Your task to perform on an android device: toggle notifications settings in the gmail app Image 0: 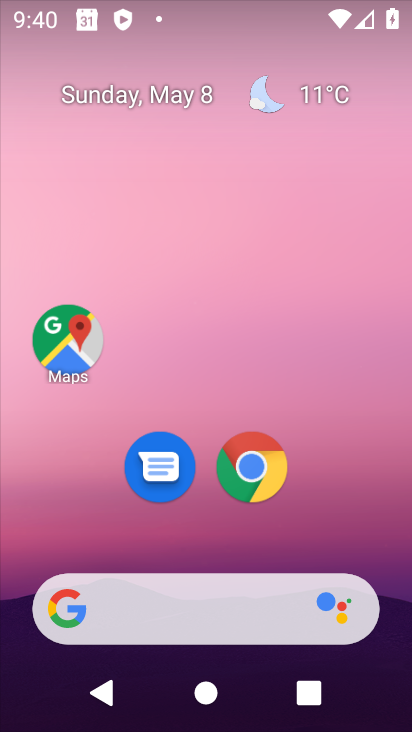
Step 0: drag from (31, 549) to (218, 189)
Your task to perform on an android device: toggle notifications settings in the gmail app Image 1: 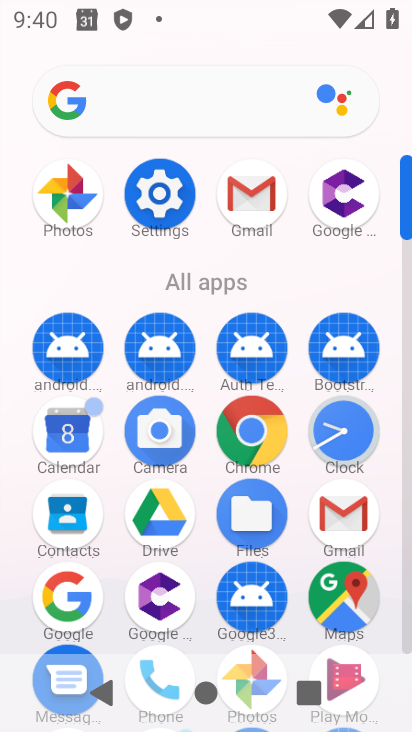
Step 1: click (328, 510)
Your task to perform on an android device: toggle notifications settings in the gmail app Image 2: 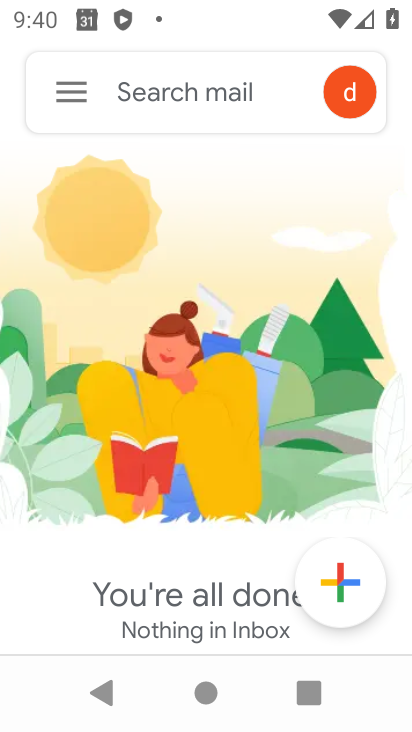
Step 2: click (75, 84)
Your task to perform on an android device: toggle notifications settings in the gmail app Image 3: 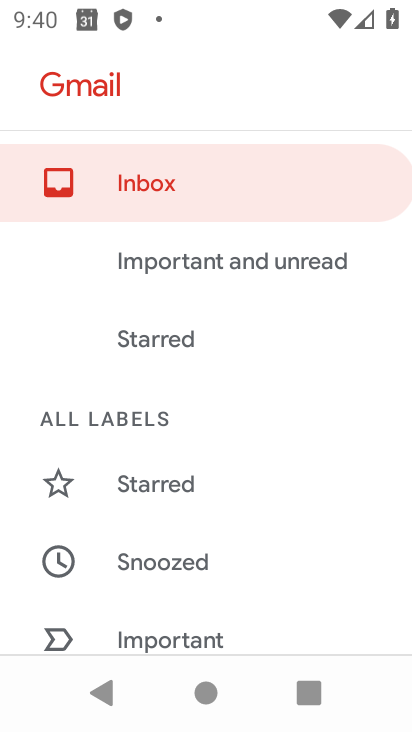
Step 3: drag from (150, 588) to (292, 150)
Your task to perform on an android device: toggle notifications settings in the gmail app Image 4: 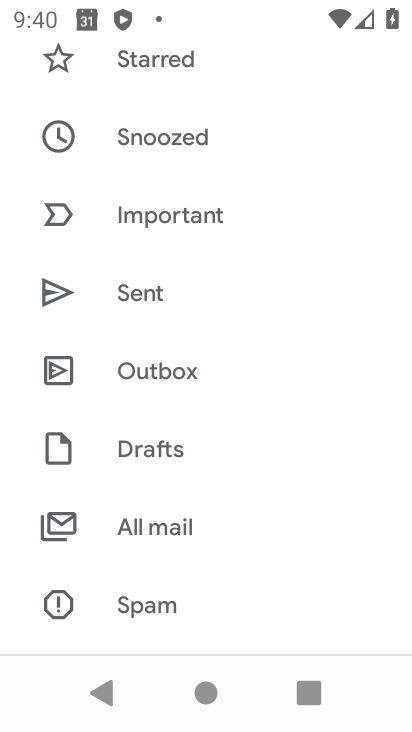
Step 4: drag from (211, 602) to (324, 160)
Your task to perform on an android device: toggle notifications settings in the gmail app Image 5: 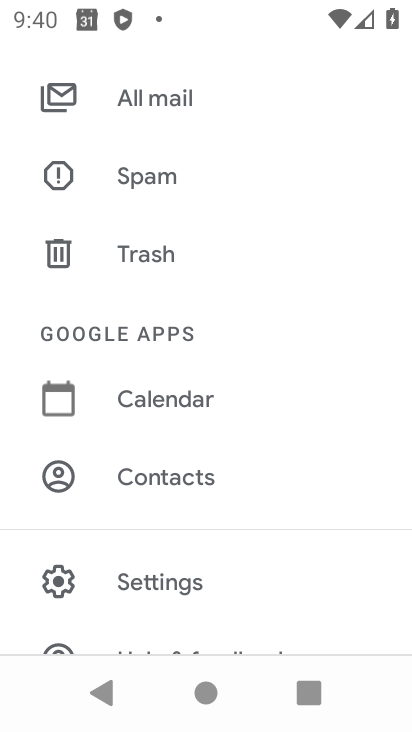
Step 5: click (153, 576)
Your task to perform on an android device: toggle notifications settings in the gmail app Image 6: 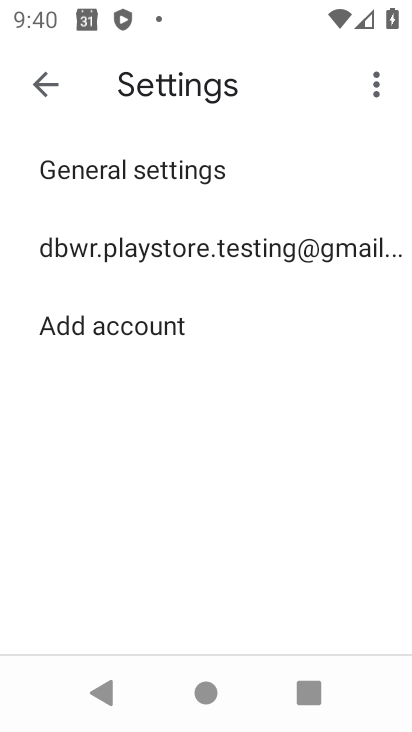
Step 6: click (46, 239)
Your task to perform on an android device: toggle notifications settings in the gmail app Image 7: 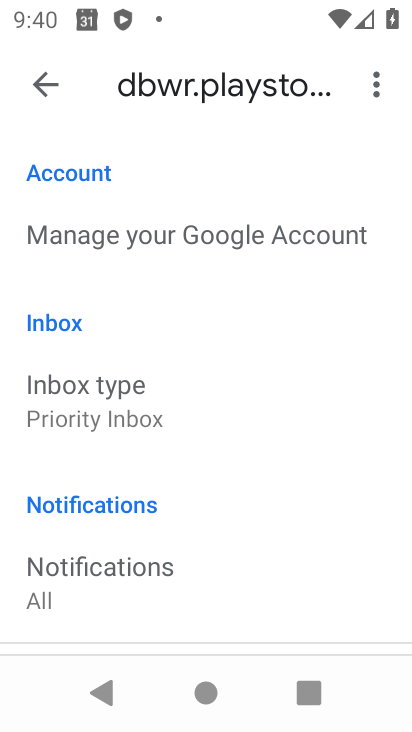
Step 7: click (119, 580)
Your task to perform on an android device: toggle notifications settings in the gmail app Image 8: 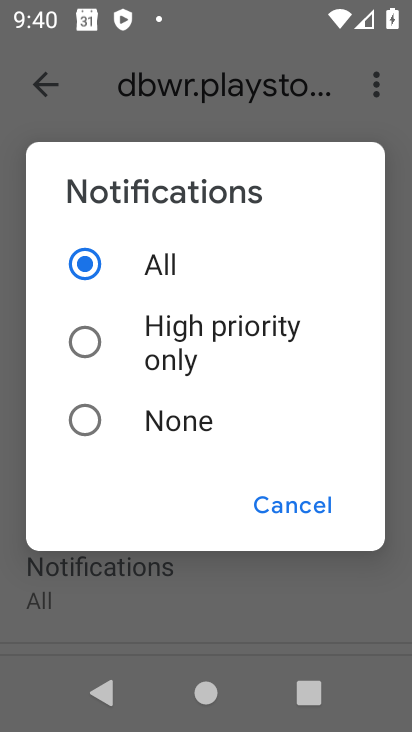
Step 8: task complete